Your task to perform on an android device: What is the recent news? Image 0: 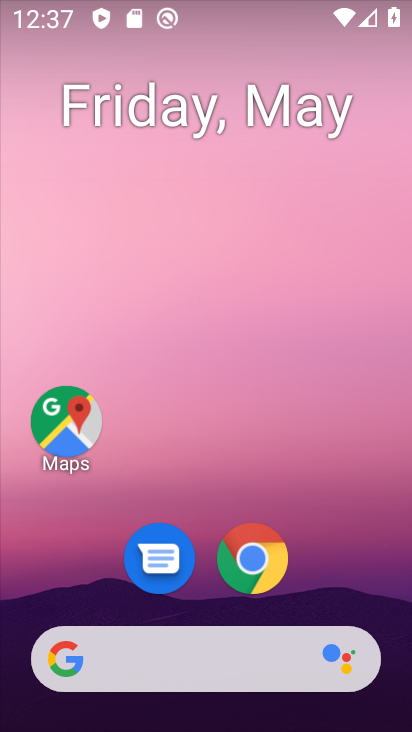
Step 0: drag from (374, 574) to (246, 195)
Your task to perform on an android device: What is the recent news? Image 1: 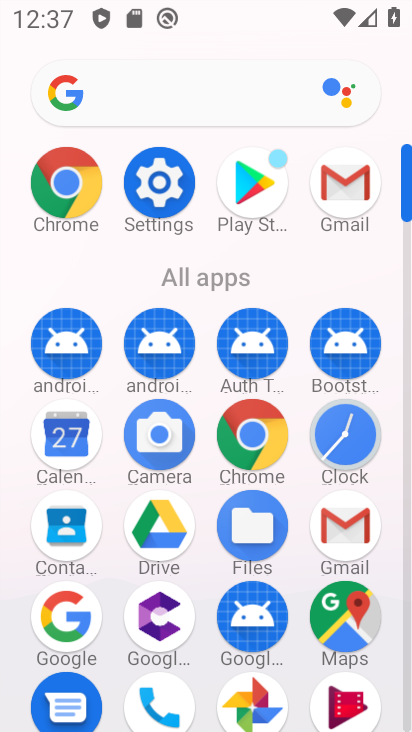
Step 1: click (209, 110)
Your task to perform on an android device: What is the recent news? Image 2: 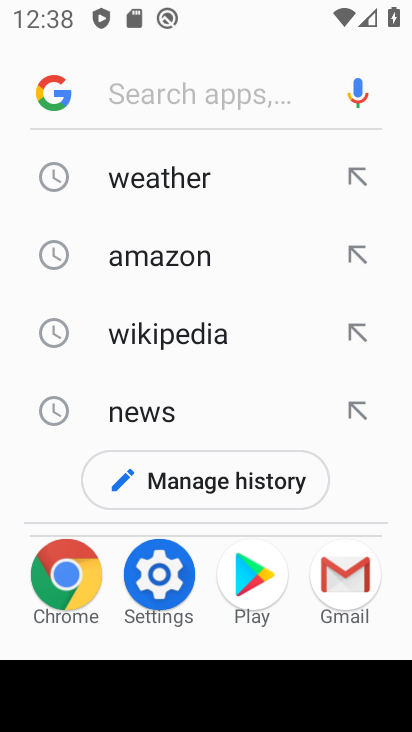
Step 2: type "recent news"
Your task to perform on an android device: What is the recent news? Image 3: 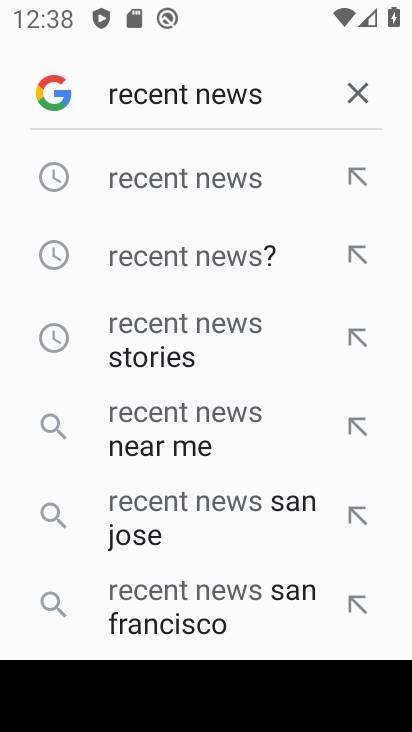
Step 3: click (170, 190)
Your task to perform on an android device: What is the recent news? Image 4: 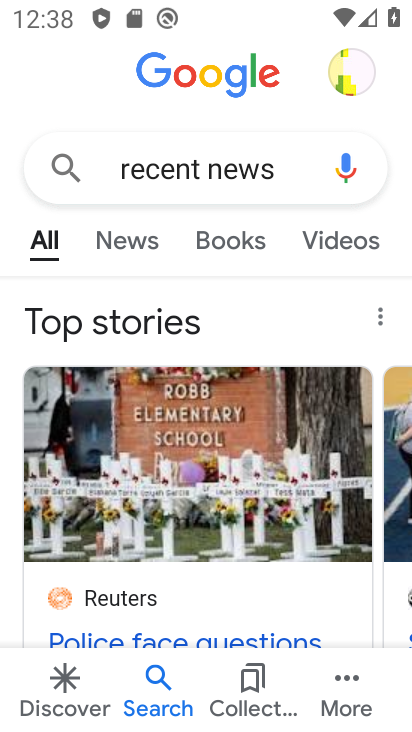
Step 4: task complete